Your task to perform on an android device: Go to Amazon Image 0: 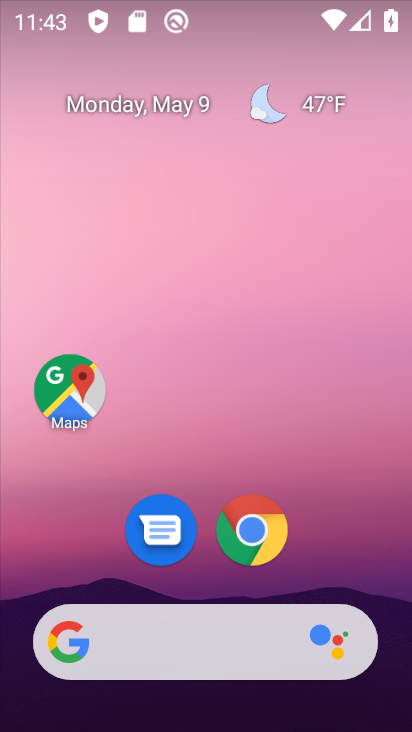
Step 0: drag from (337, 456) to (336, 193)
Your task to perform on an android device: Go to Amazon Image 1: 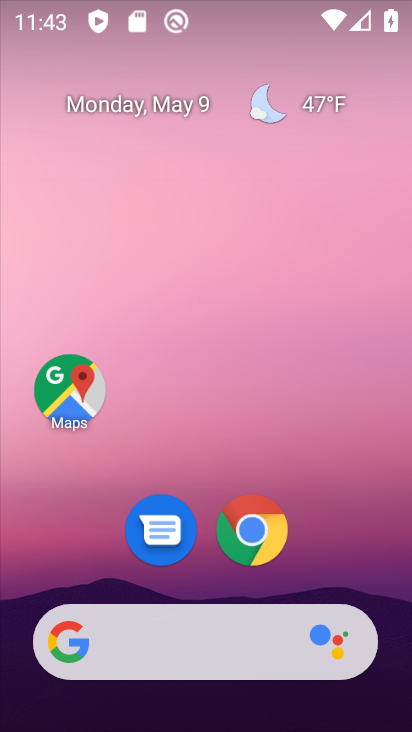
Step 1: drag from (319, 564) to (306, 247)
Your task to perform on an android device: Go to Amazon Image 2: 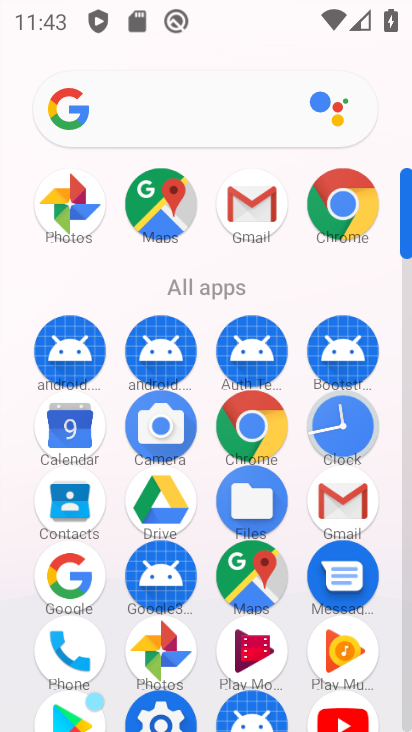
Step 2: click (243, 444)
Your task to perform on an android device: Go to Amazon Image 3: 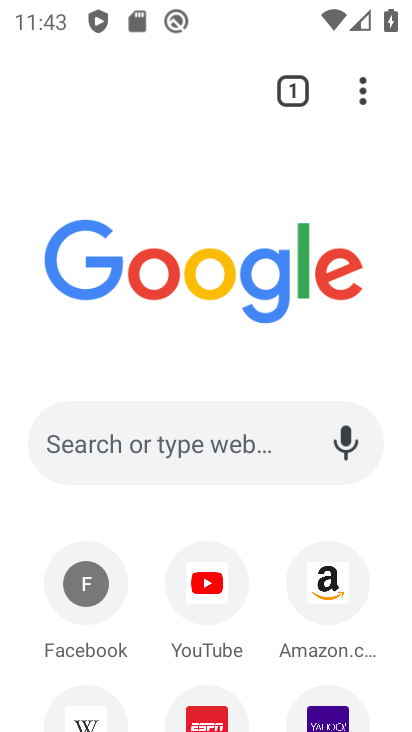
Step 3: click (310, 591)
Your task to perform on an android device: Go to Amazon Image 4: 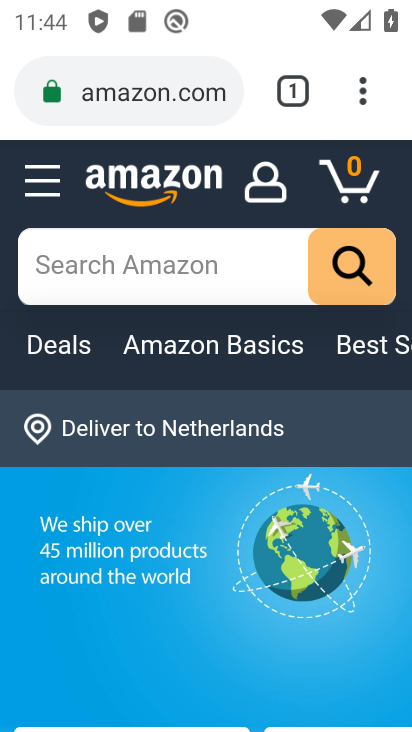
Step 4: task complete